Your task to perform on an android device: toggle notification dots Image 0: 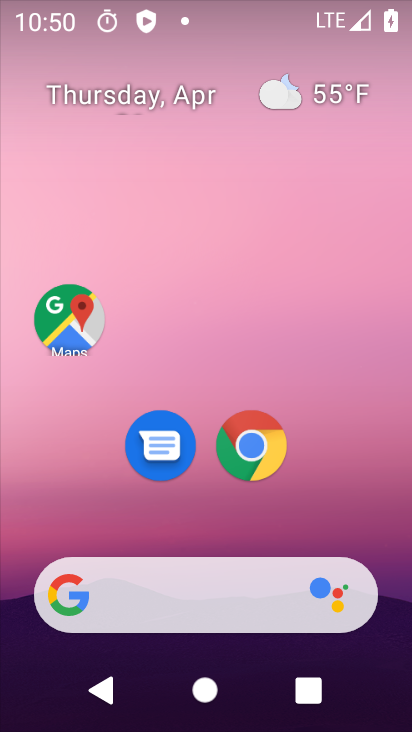
Step 0: drag from (385, 539) to (389, 22)
Your task to perform on an android device: toggle notification dots Image 1: 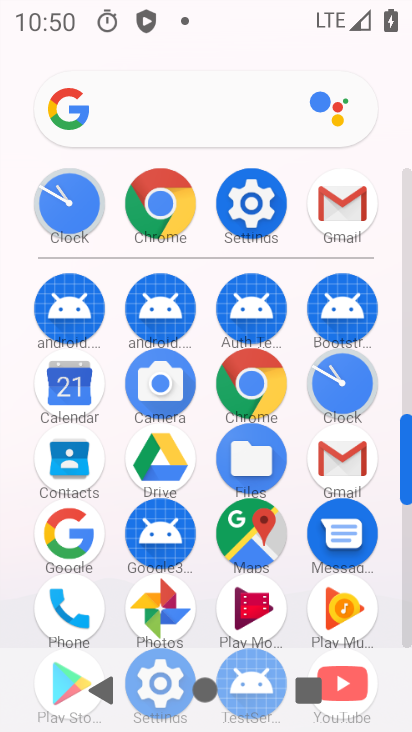
Step 1: click (250, 210)
Your task to perform on an android device: toggle notification dots Image 2: 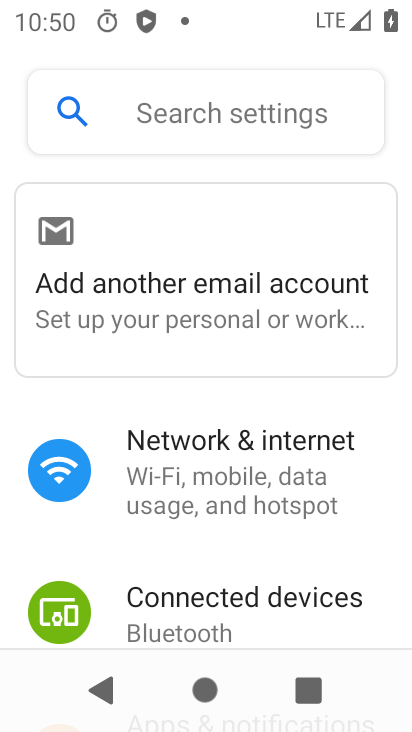
Step 2: drag from (281, 525) to (280, 168)
Your task to perform on an android device: toggle notification dots Image 3: 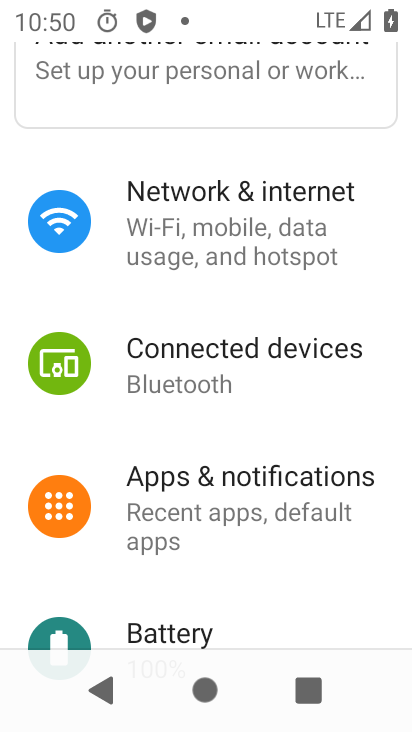
Step 3: click (229, 492)
Your task to perform on an android device: toggle notification dots Image 4: 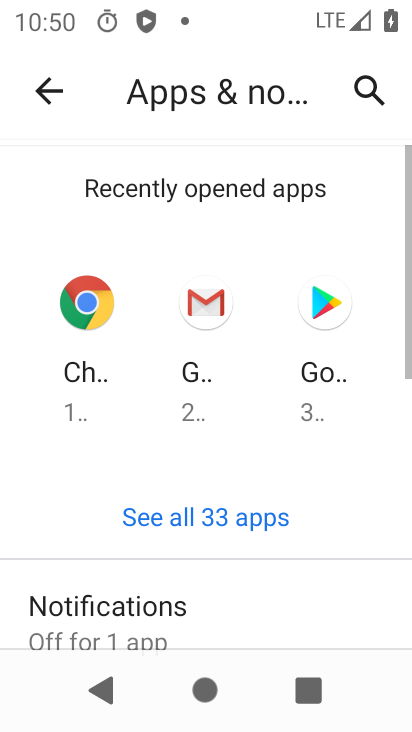
Step 4: drag from (272, 583) to (254, 150)
Your task to perform on an android device: toggle notification dots Image 5: 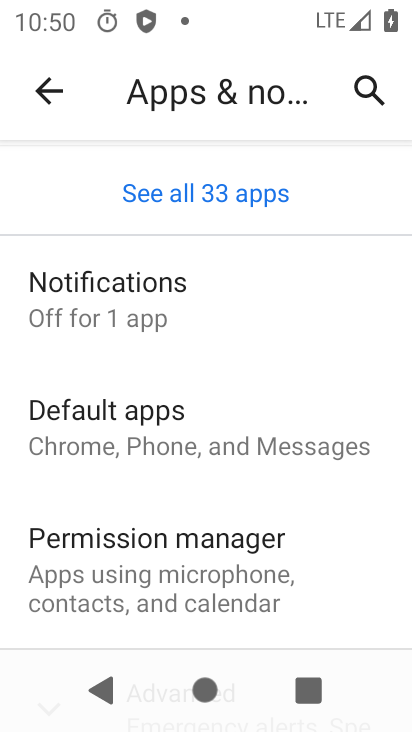
Step 5: click (89, 307)
Your task to perform on an android device: toggle notification dots Image 6: 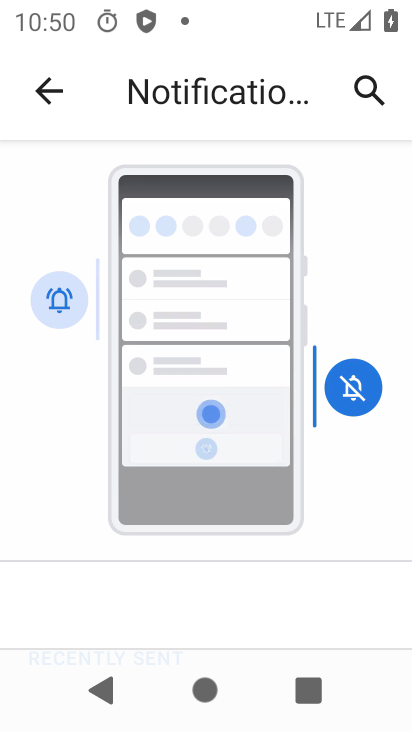
Step 6: drag from (298, 517) to (276, 118)
Your task to perform on an android device: toggle notification dots Image 7: 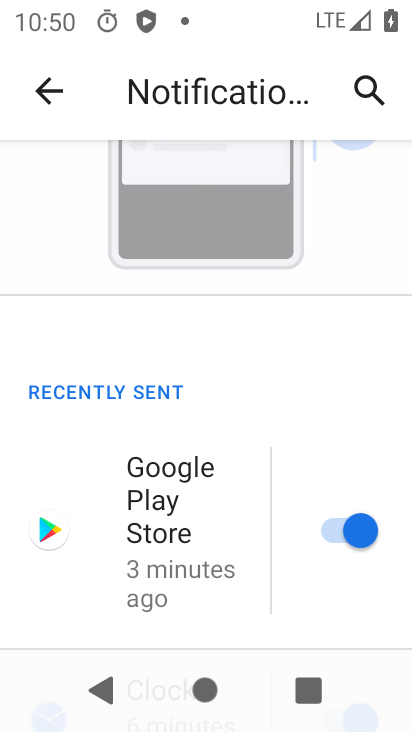
Step 7: drag from (223, 336) to (223, 132)
Your task to perform on an android device: toggle notification dots Image 8: 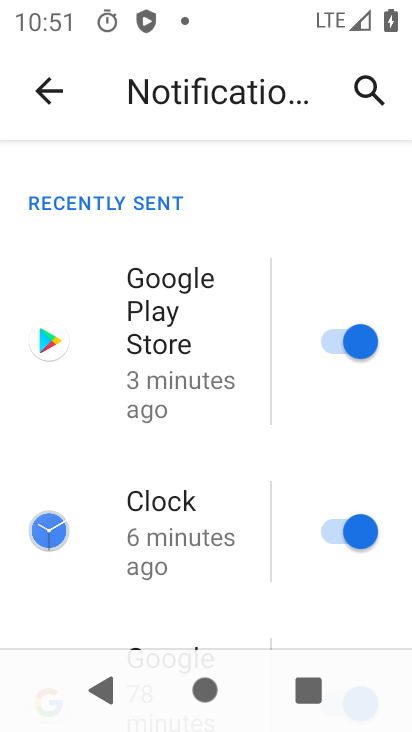
Step 8: drag from (181, 542) to (184, 200)
Your task to perform on an android device: toggle notification dots Image 9: 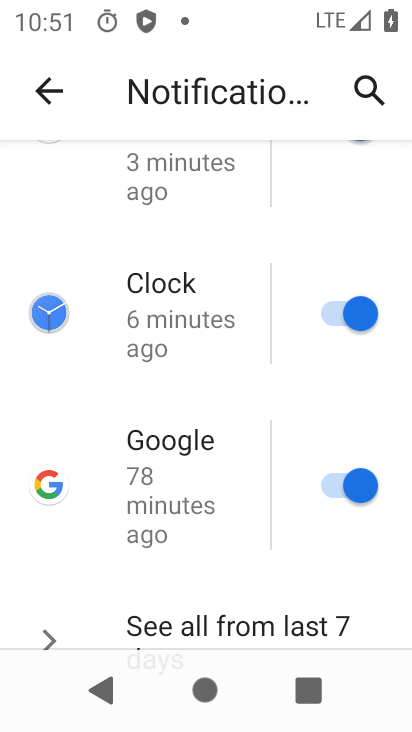
Step 9: drag from (194, 544) to (203, 236)
Your task to perform on an android device: toggle notification dots Image 10: 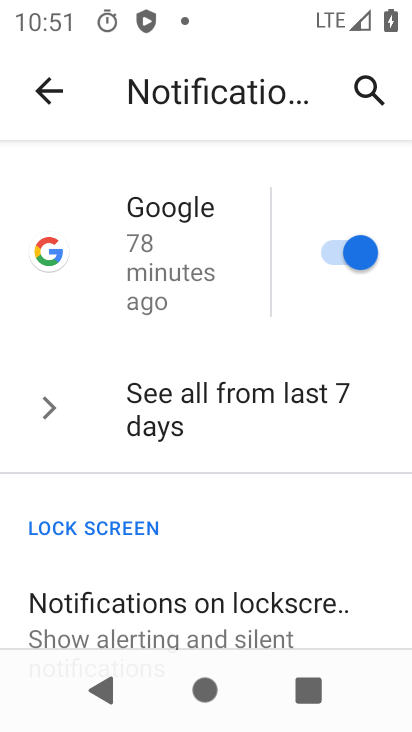
Step 10: drag from (186, 586) to (198, 191)
Your task to perform on an android device: toggle notification dots Image 11: 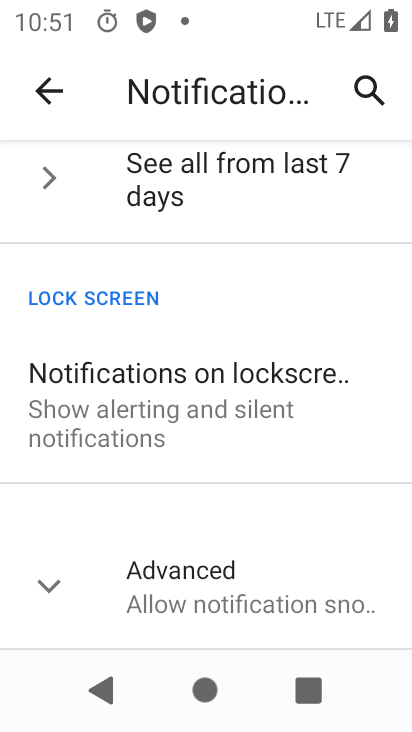
Step 11: click (51, 594)
Your task to perform on an android device: toggle notification dots Image 12: 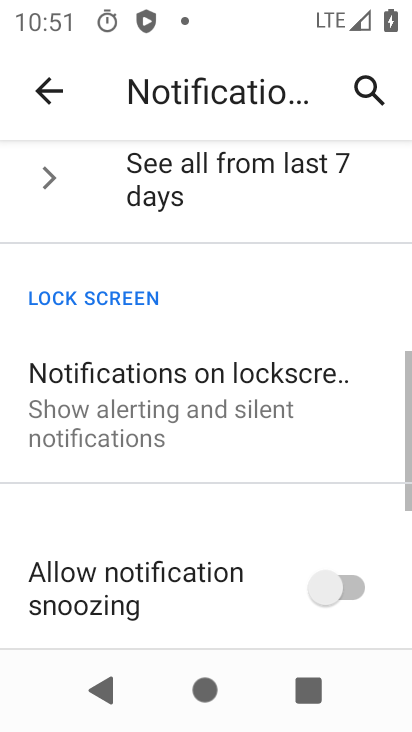
Step 12: drag from (225, 592) to (208, 141)
Your task to perform on an android device: toggle notification dots Image 13: 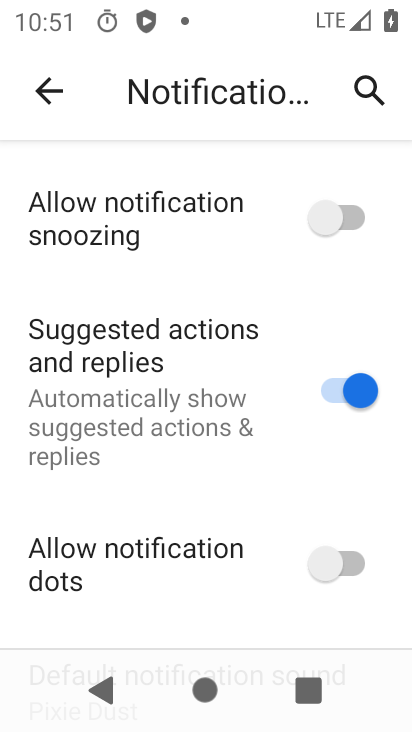
Step 13: drag from (183, 480) to (184, 236)
Your task to perform on an android device: toggle notification dots Image 14: 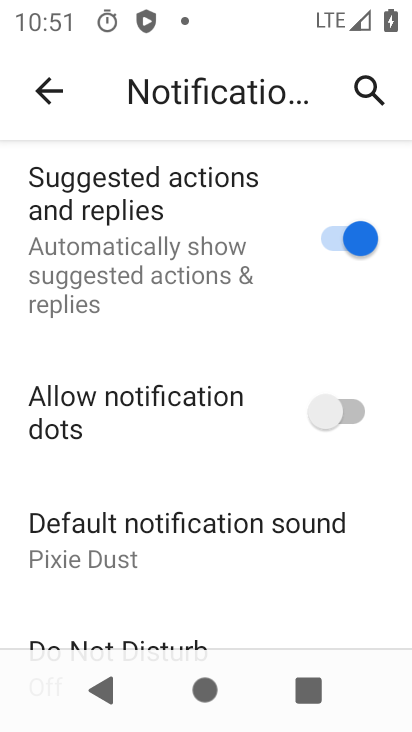
Step 14: click (338, 409)
Your task to perform on an android device: toggle notification dots Image 15: 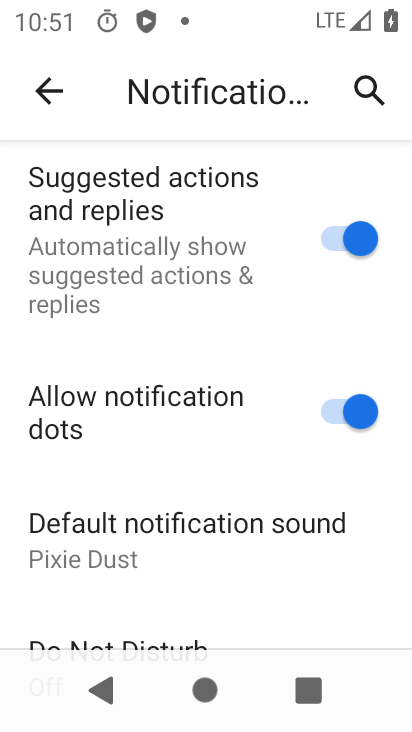
Step 15: task complete